Your task to perform on an android device: check storage Image 0: 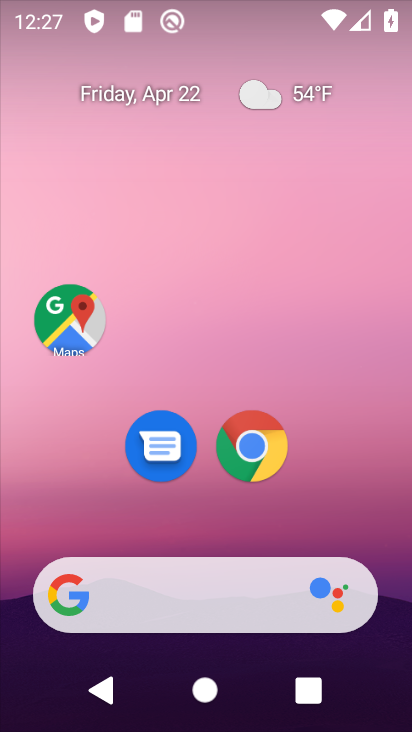
Step 0: drag from (402, 562) to (323, 91)
Your task to perform on an android device: check storage Image 1: 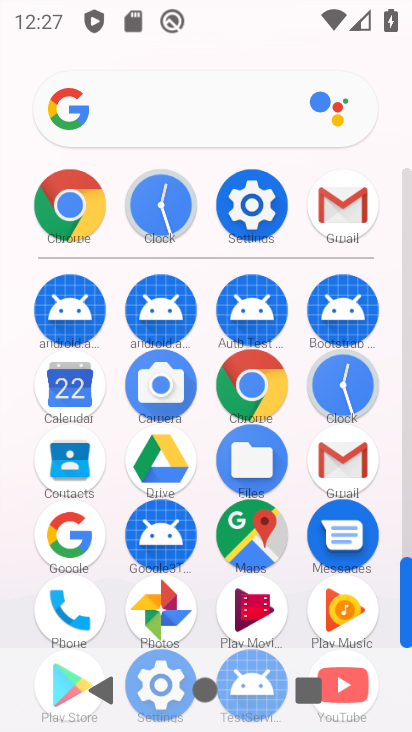
Step 1: click (268, 215)
Your task to perform on an android device: check storage Image 2: 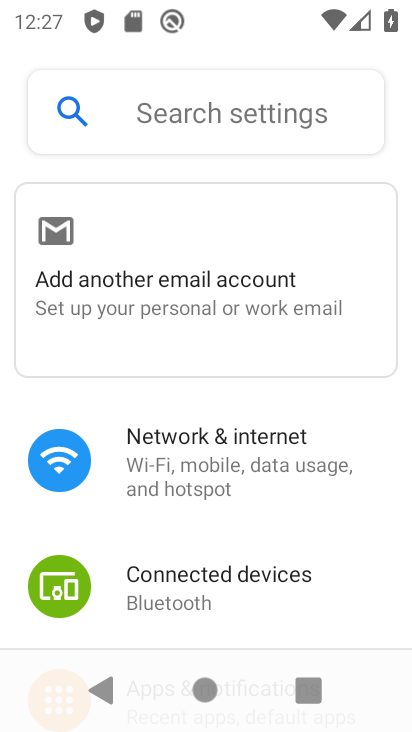
Step 2: drag from (292, 527) to (284, 162)
Your task to perform on an android device: check storage Image 3: 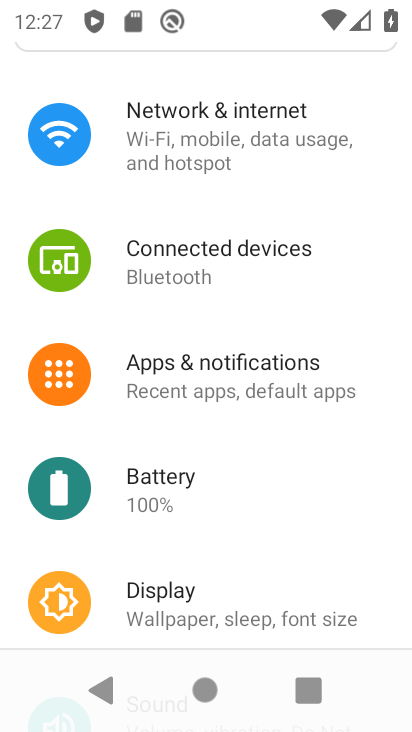
Step 3: drag from (262, 527) to (267, 205)
Your task to perform on an android device: check storage Image 4: 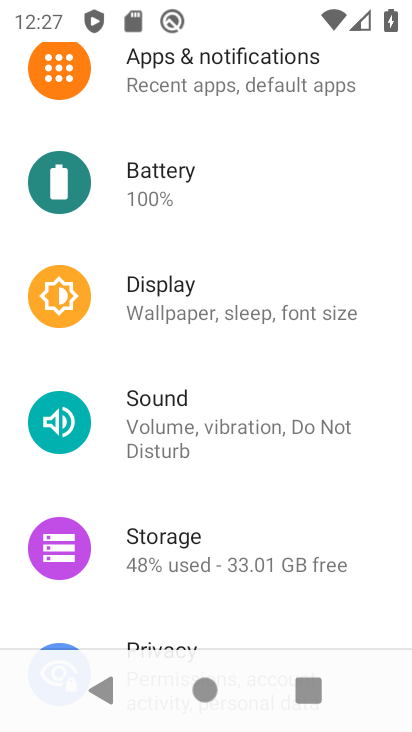
Step 4: click (250, 540)
Your task to perform on an android device: check storage Image 5: 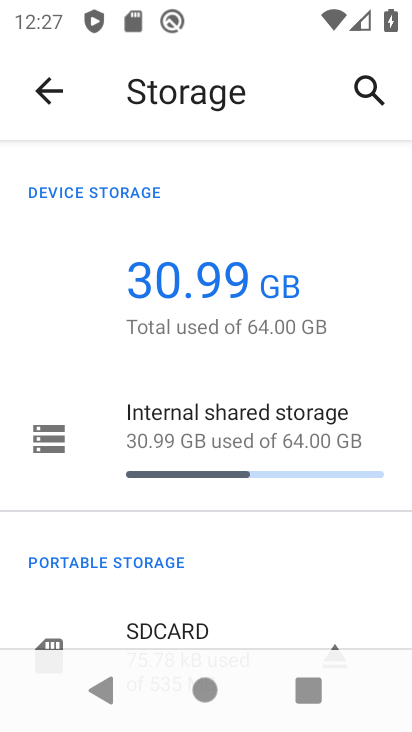
Step 5: task complete